Your task to perform on an android device: Open calendar and show me the fourth week of next month Image 0: 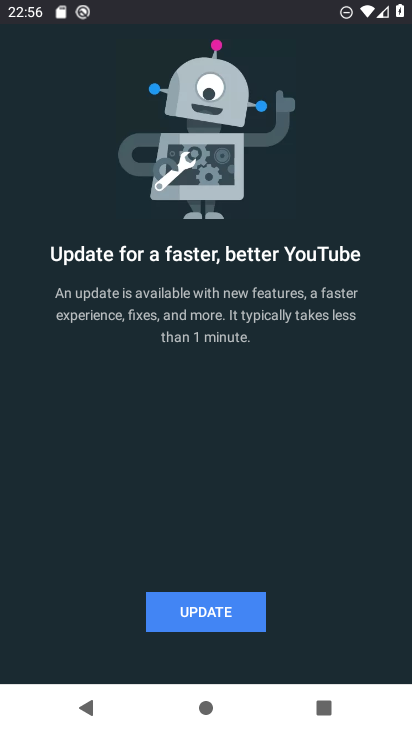
Step 0: press home button
Your task to perform on an android device: Open calendar and show me the fourth week of next month Image 1: 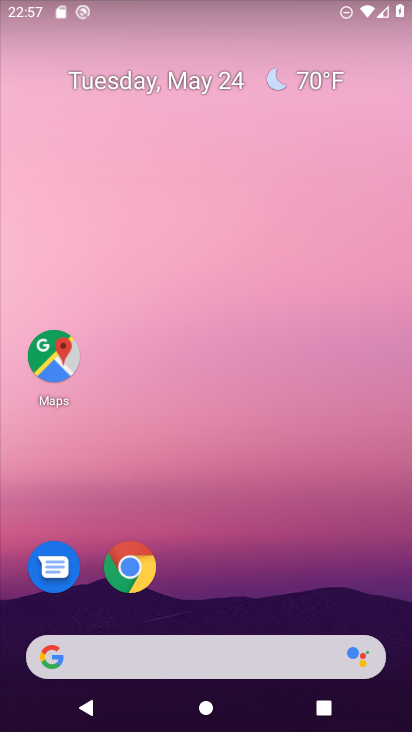
Step 1: click (200, 82)
Your task to perform on an android device: Open calendar and show me the fourth week of next month Image 2: 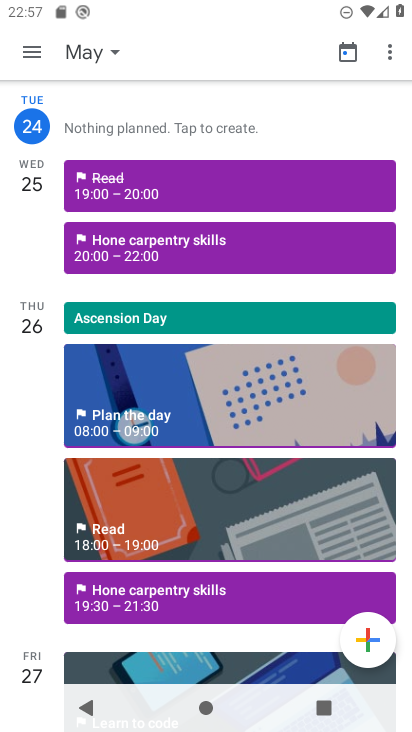
Step 2: click (111, 48)
Your task to perform on an android device: Open calendar and show me the fourth week of next month Image 3: 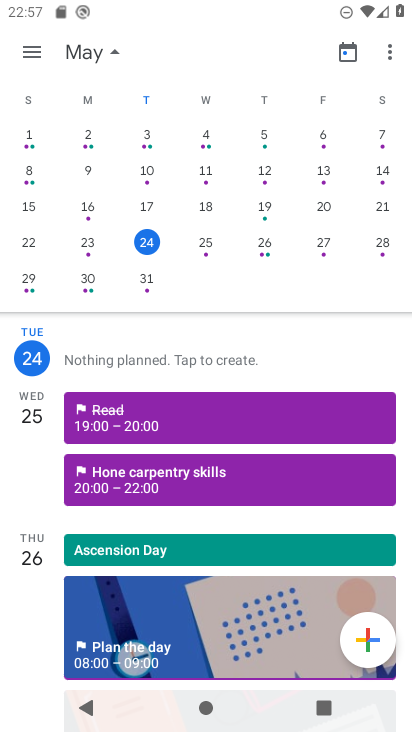
Step 3: drag from (359, 213) to (11, 221)
Your task to perform on an android device: Open calendar and show me the fourth week of next month Image 4: 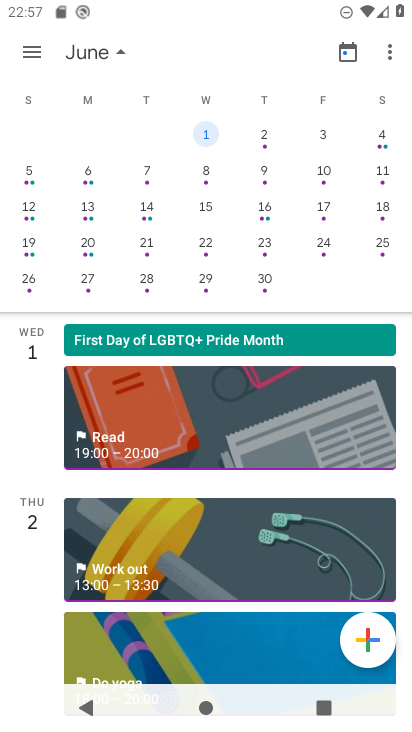
Step 4: click (31, 246)
Your task to perform on an android device: Open calendar and show me the fourth week of next month Image 5: 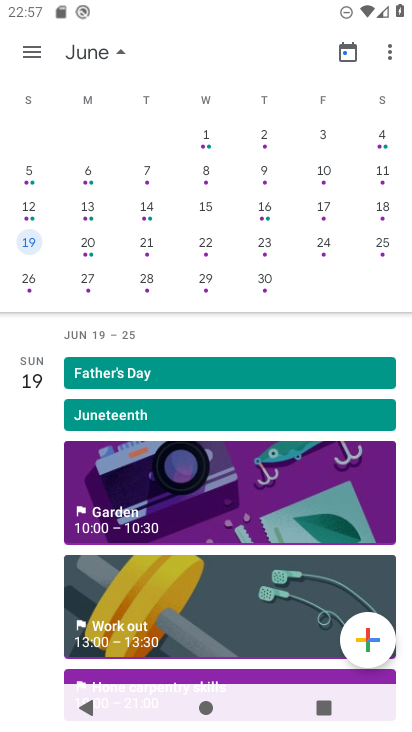
Step 5: task complete